Your task to perform on an android device: create a new album in the google photos Image 0: 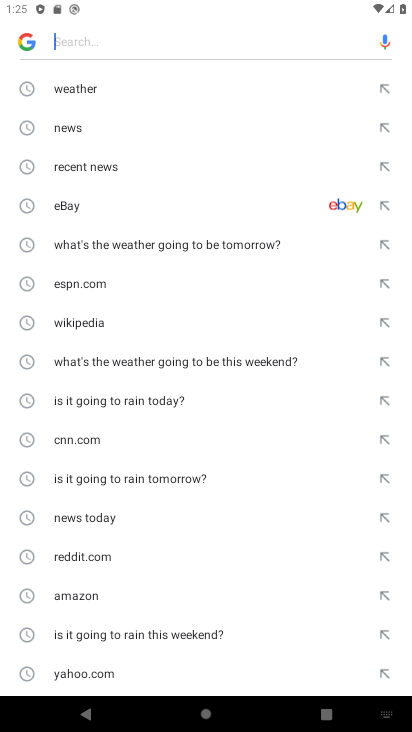
Step 0: press home button
Your task to perform on an android device: create a new album in the google photos Image 1: 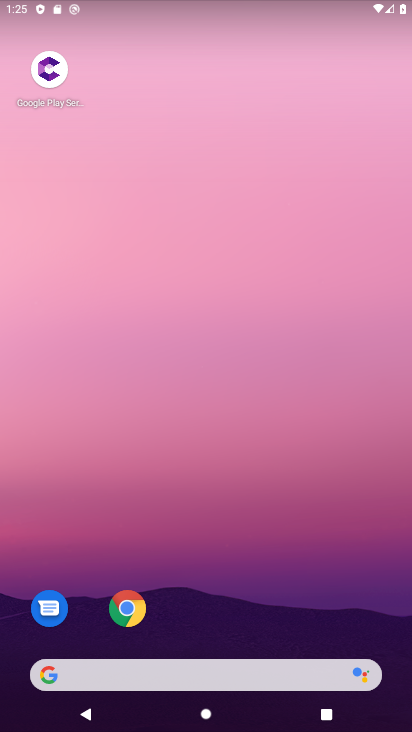
Step 1: drag from (230, 603) to (289, 176)
Your task to perform on an android device: create a new album in the google photos Image 2: 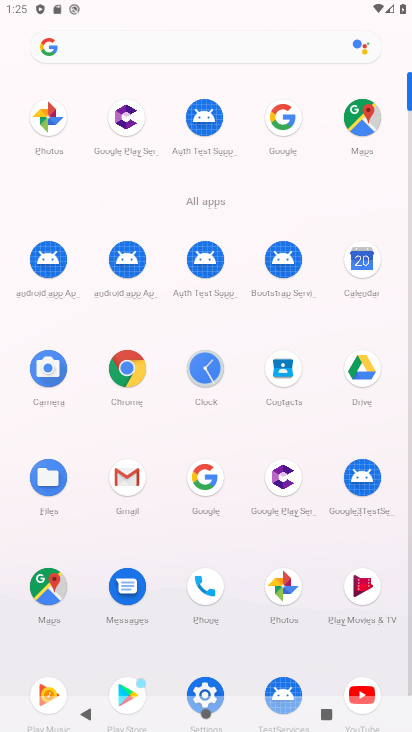
Step 2: click (61, 115)
Your task to perform on an android device: create a new album in the google photos Image 3: 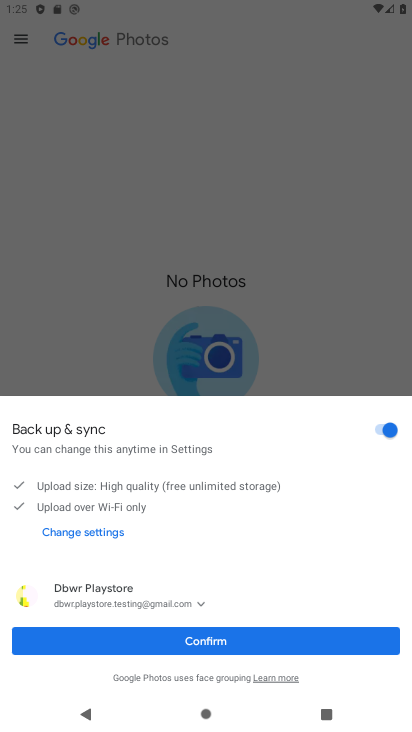
Step 3: click (261, 645)
Your task to perform on an android device: create a new album in the google photos Image 4: 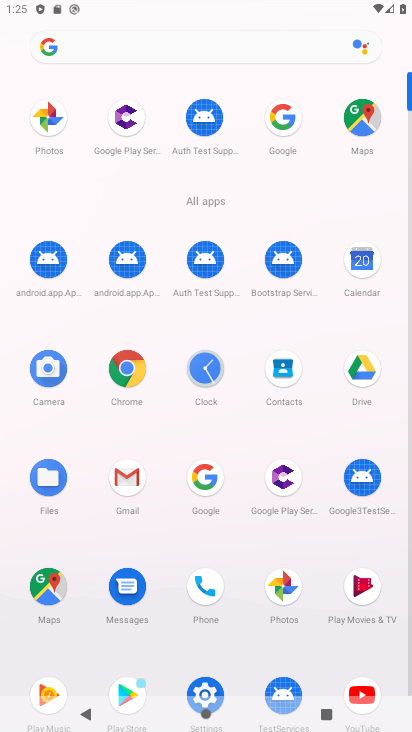
Step 4: click (50, 135)
Your task to perform on an android device: create a new album in the google photos Image 5: 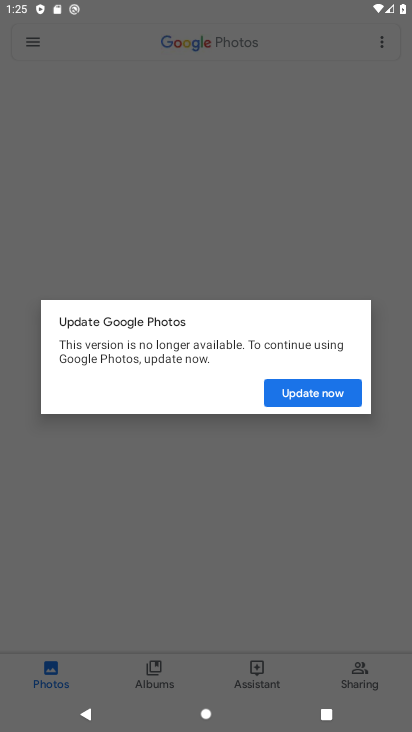
Step 5: click (326, 396)
Your task to perform on an android device: create a new album in the google photos Image 6: 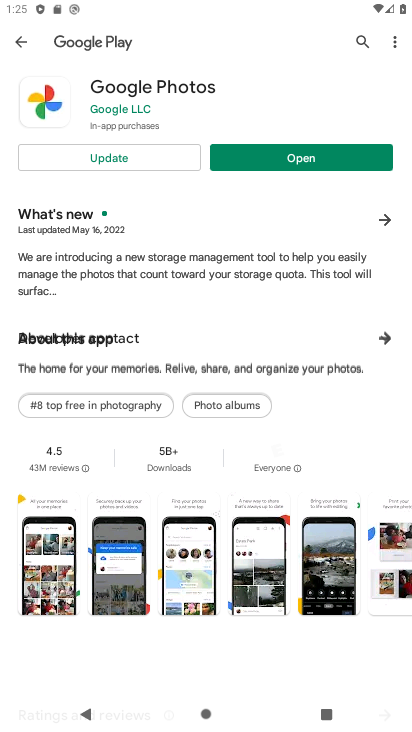
Step 6: click (167, 164)
Your task to perform on an android device: create a new album in the google photos Image 7: 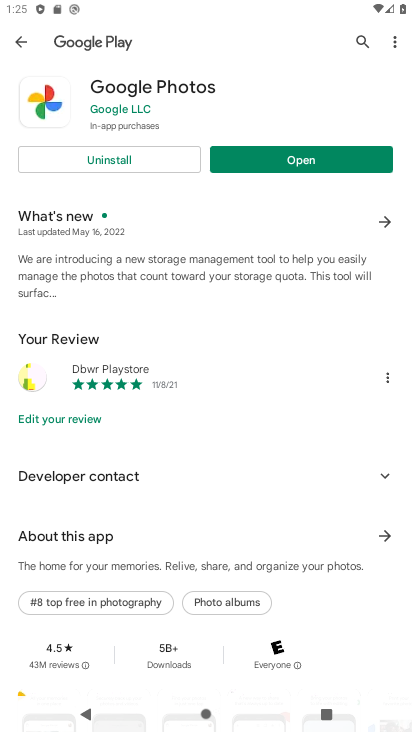
Step 7: click (274, 161)
Your task to perform on an android device: create a new album in the google photos Image 8: 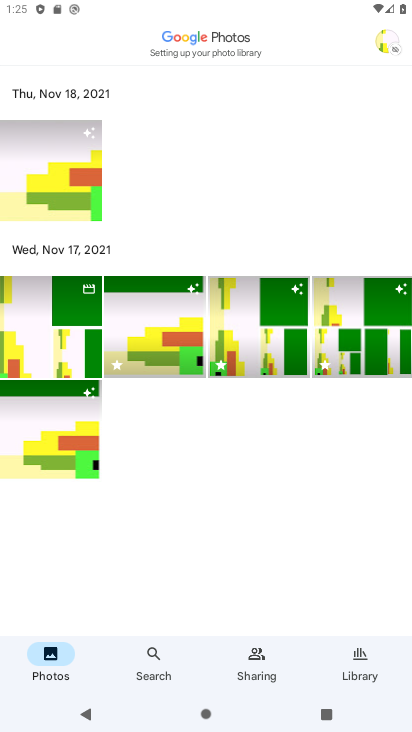
Step 8: click (394, 43)
Your task to perform on an android device: create a new album in the google photos Image 9: 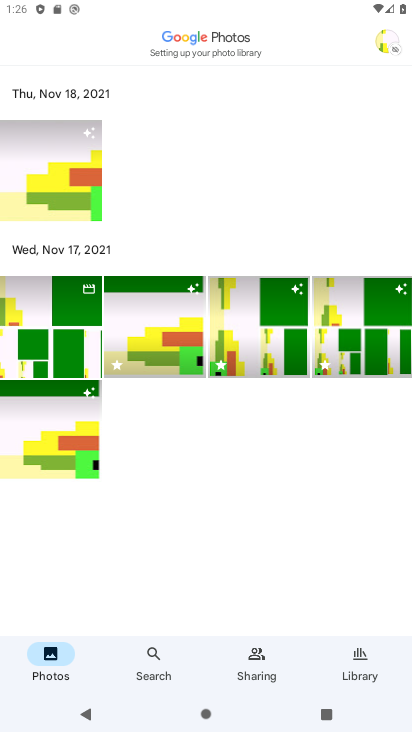
Step 9: click (389, 44)
Your task to perform on an android device: create a new album in the google photos Image 10: 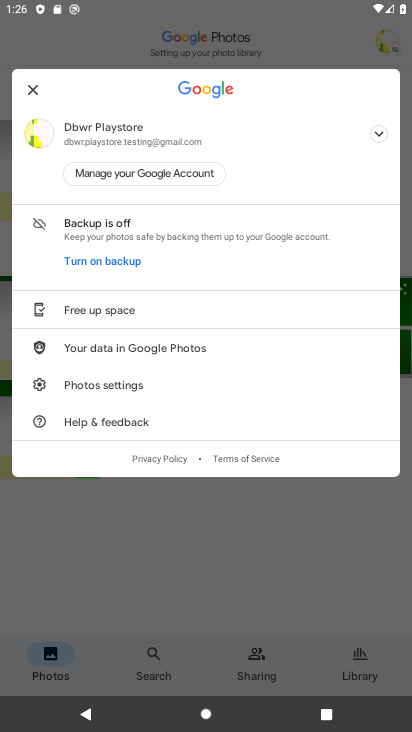
Step 10: click (248, 606)
Your task to perform on an android device: create a new album in the google photos Image 11: 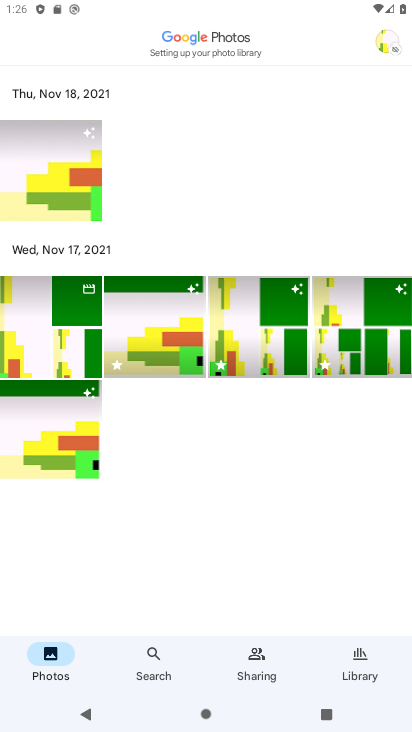
Step 11: click (360, 677)
Your task to perform on an android device: create a new album in the google photos Image 12: 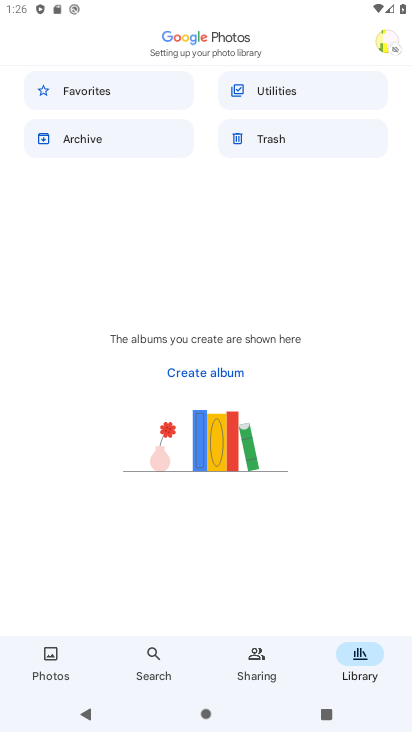
Step 12: click (214, 374)
Your task to perform on an android device: create a new album in the google photos Image 13: 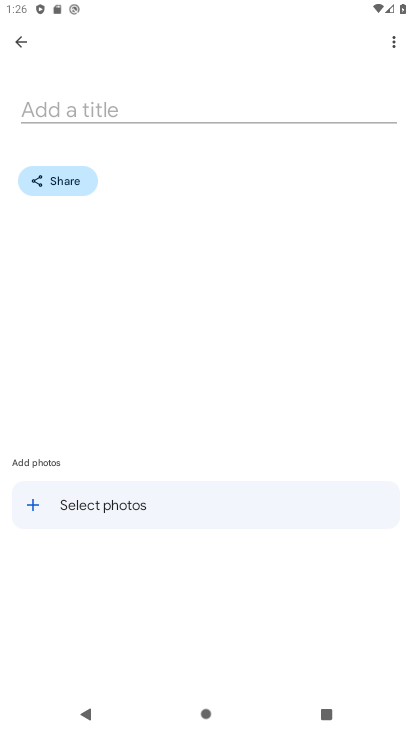
Step 13: click (39, 506)
Your task to perform on an android device: create a new album in the google photos Image 14: 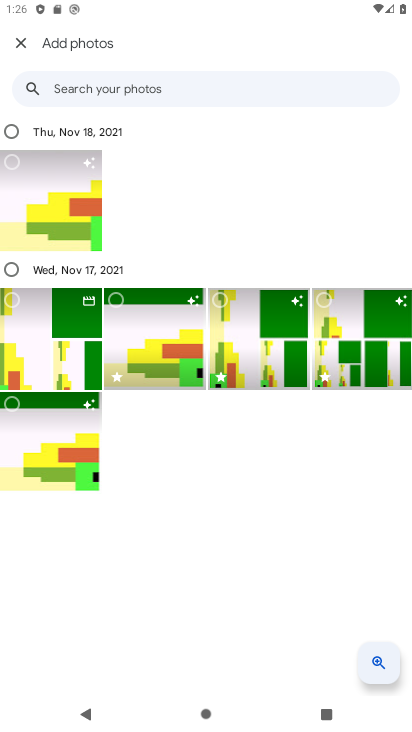
Step 14: click (39, 195)
Your task to perform on an android device: create a new album in the google photos Image 15: 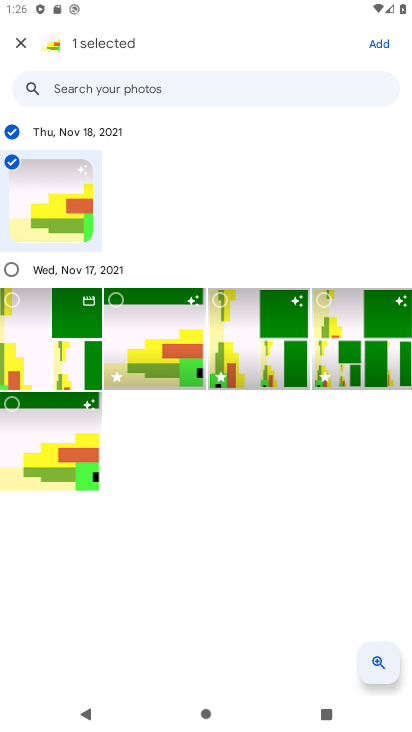
Step 15: click (375, 42)
Your task to perform on an android device: create a new album in the google photos Image 16: 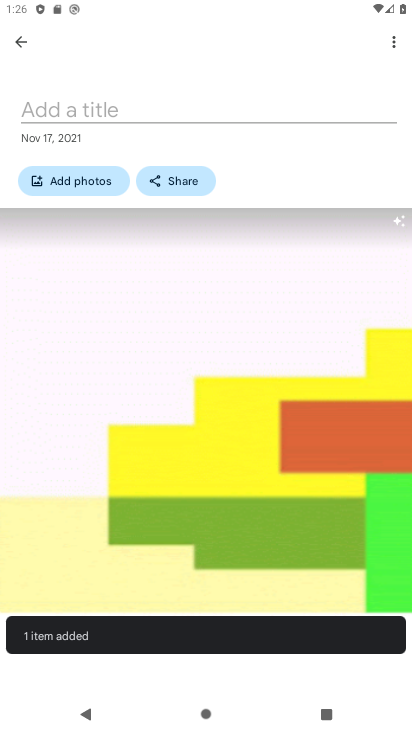
Step 16: click (201, 110)
Your task to perform on an android device: create a new album in the google photos Image 17: 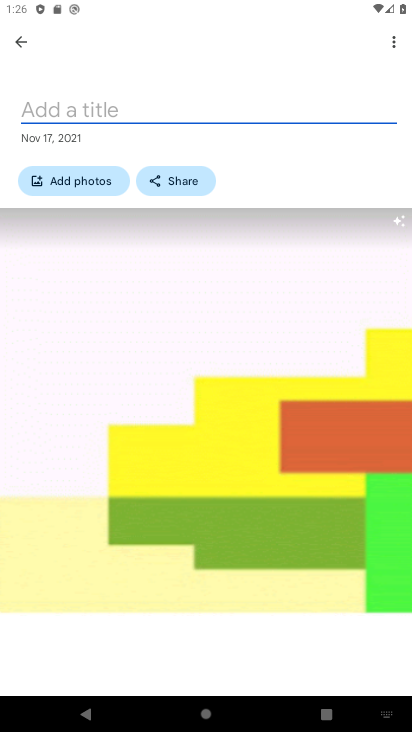
Step 17: type "2222"
Your task to perform on an android device: create a new album in the google photos Image 18: 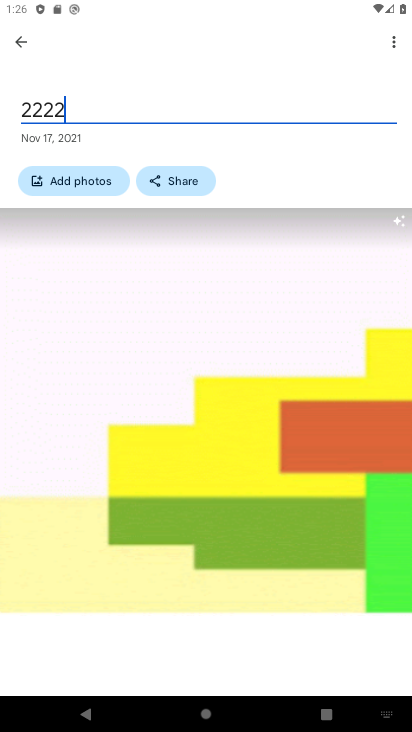
Step 18: click (390, 41)
Your task to perform on an android device: create a new album in the google photos Image 19: 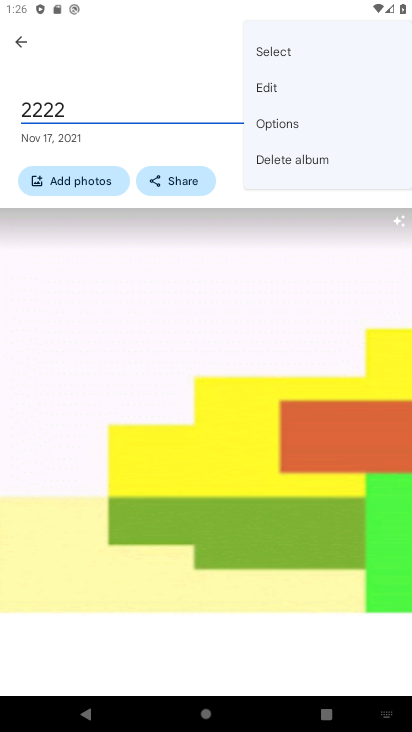
Step 19: click (256, 242)
Your task to perform on an android device: create a new album in the google photos Image 20: 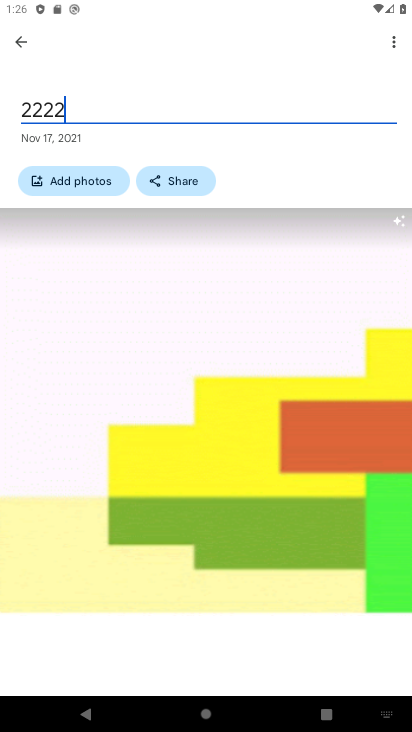
Step 20: click (91, 180)
Your task to perform on an android device: create a new album in the google photos Image 21: 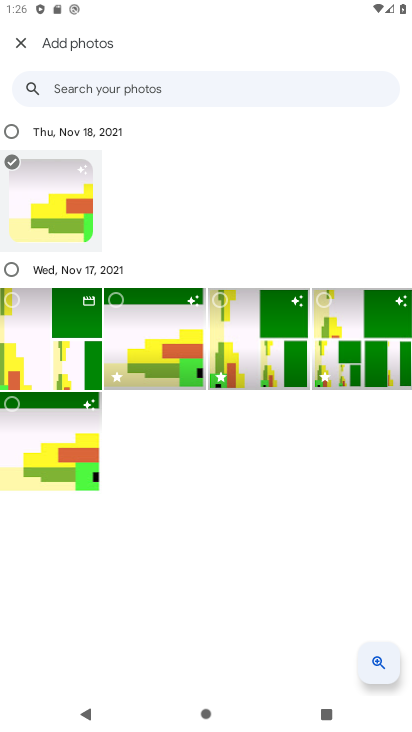
Step 21: click (66, 209)
Your task to perform on an android device: create a new album in the google photos Image 22: 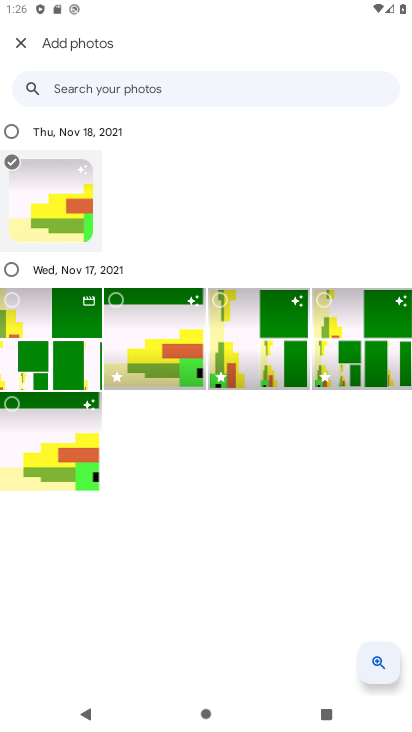
Step 22: click (51, 304)
Your task to perform on an android device: create a new album in the google photos Image 23: 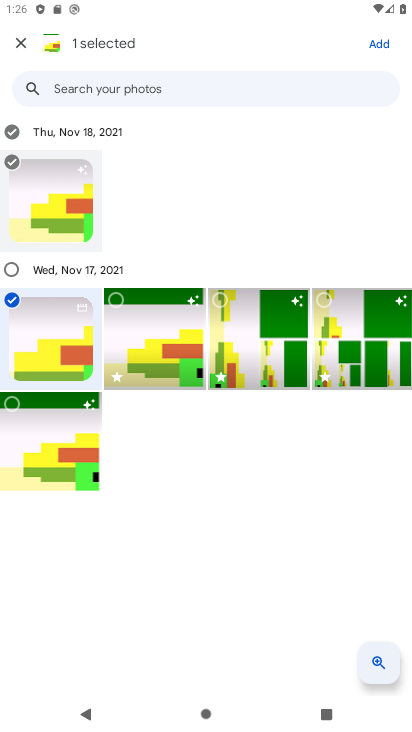
Step 23: click (383, 42)
Your task to perform on an android device: create a new album in the google photos Image 24: 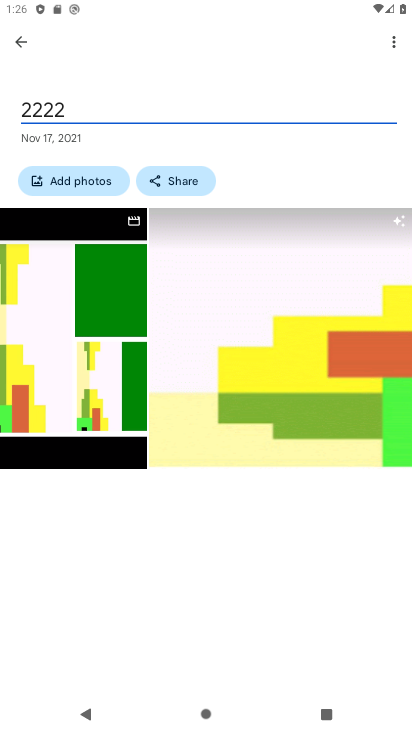
Step 24: task complete